Your task to perform on an android device: Open calendar and show me the second week of next month Image 0: 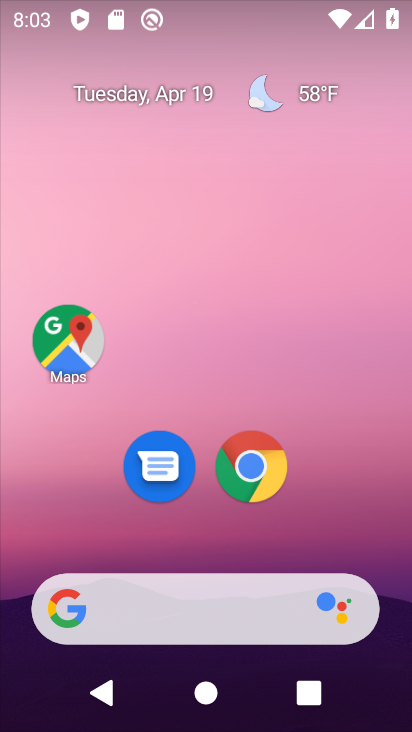
Step 0: drag from (230, 492) to (215, 173)
Your task to perform on an android device: Open calendar and show me the second week of next month Image 1: 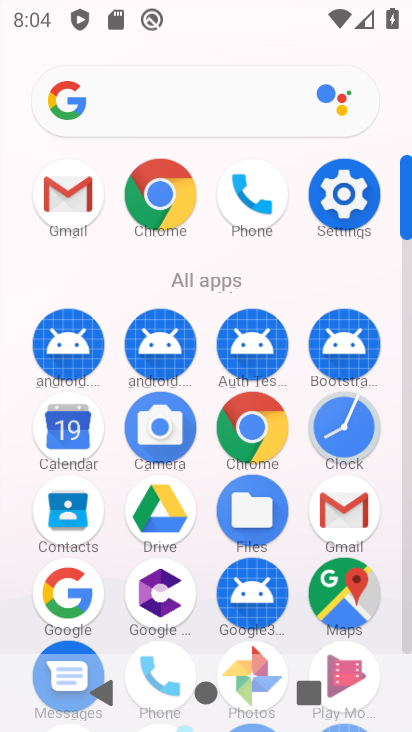
Step 1: click (58, 432)
Your task to perform on an android device: Open calendar and show me the second week of next month Image 2: 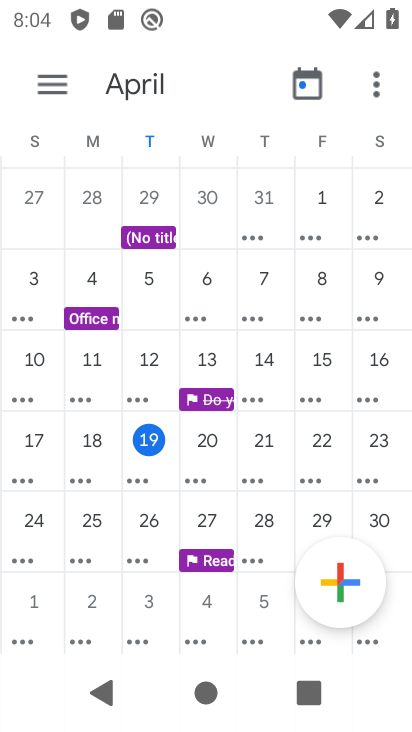
Step 2: task complete